Your task to perform on an android device: turn on sleep mode Image 0: 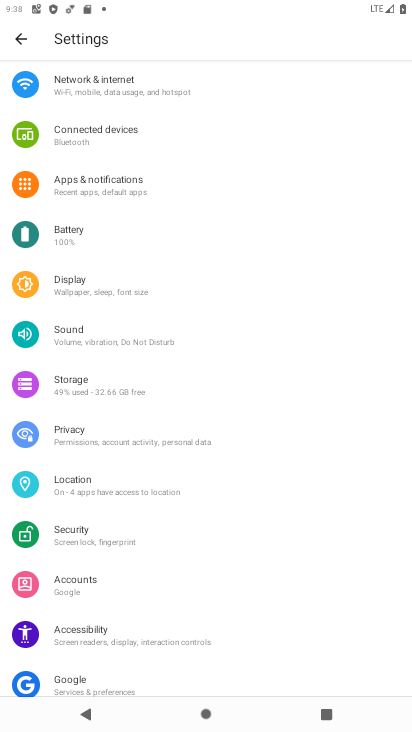
Step 0: click (72, 270)
Your task to perform on an android device: turn on sleep mode Image 1: 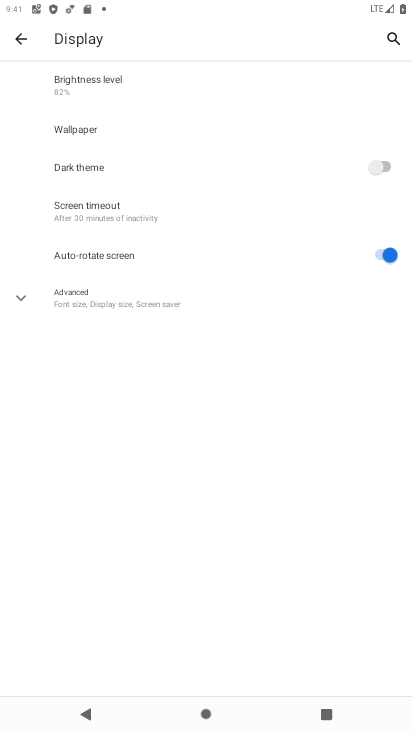
Step 1: task complete